Your task to perform on an android device: open app "Life360: Find Family & Friends" (install if not already installed) Image 0: 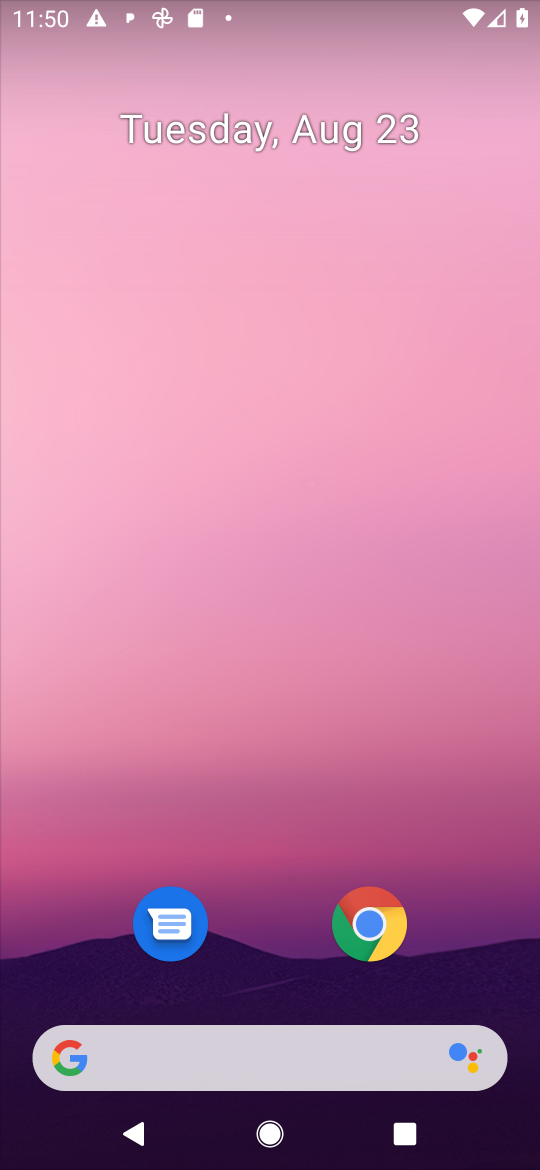
Step 0: press home button
Your task to perform on an android device: open app "Life360: Find Family & Friends" (install if not already installed) Image 1: 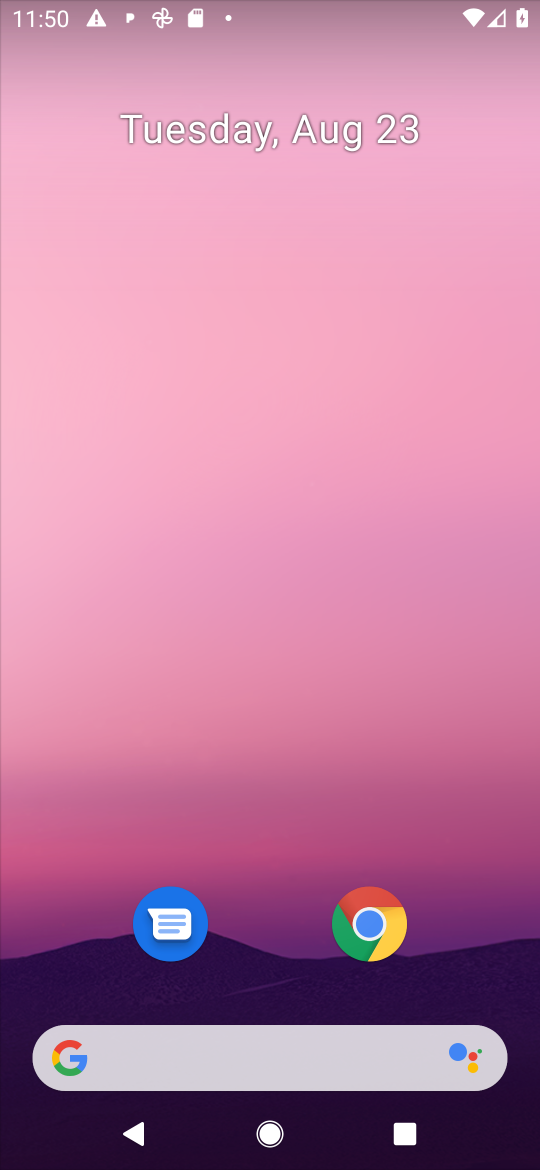
Step 1: drag from (475, 962) to (489, 142)
Your task to perform on an android device: open app "Life360: Find Family & Friends" (install if not already installed) Image 2: 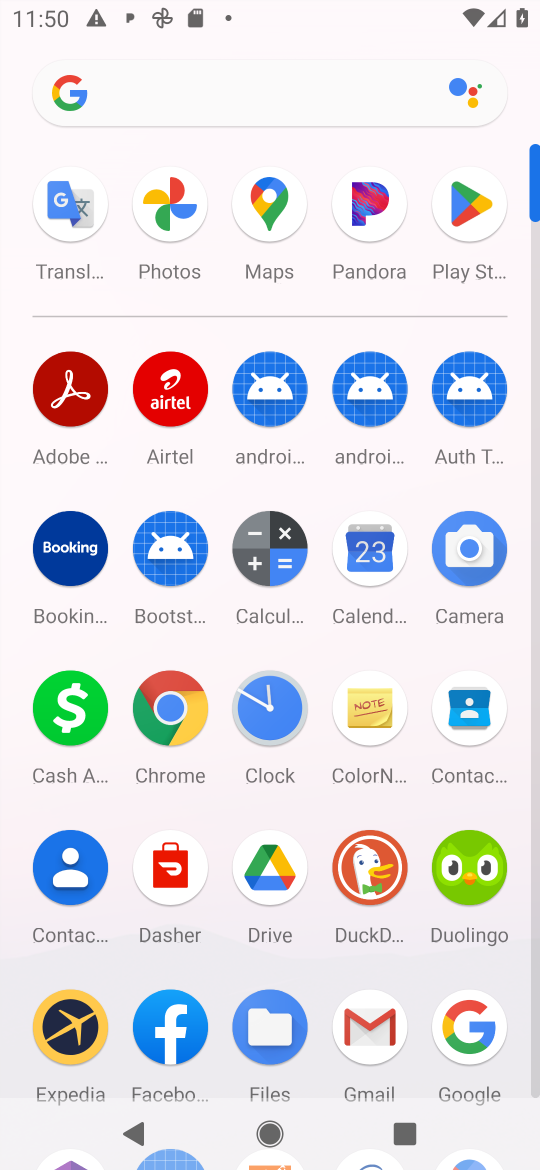
Step 2: click (475, 226)
Your task to perform on an android device: open app "Life360: Find Family & Friends" (install if not already installed) Image 3: 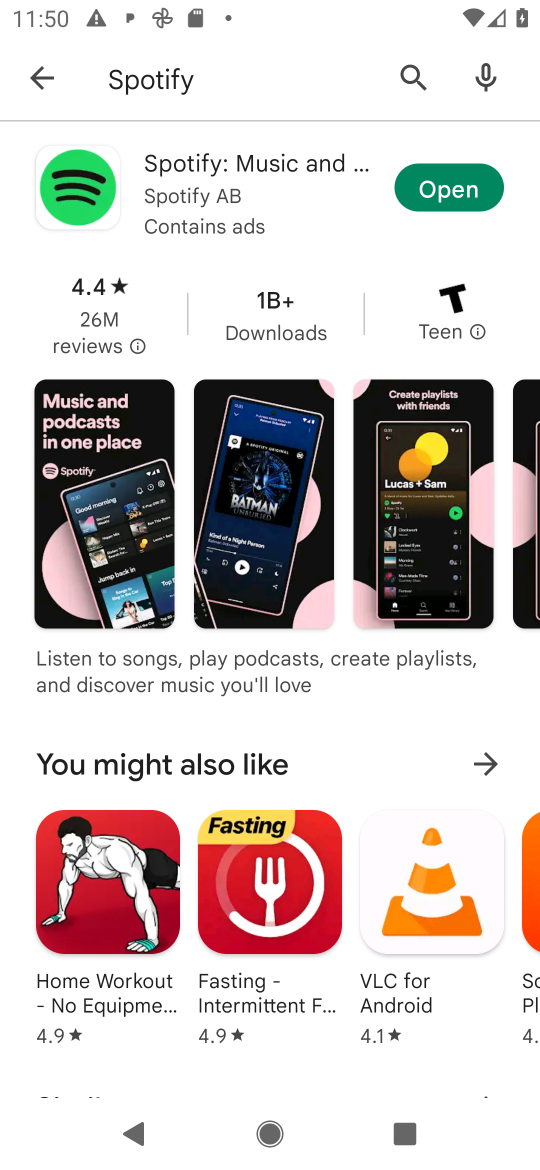
Step 3: press back button
Your task to perform on an android device: open app "Life360: Find Family & Friends" (install if not already installed) Image 4: 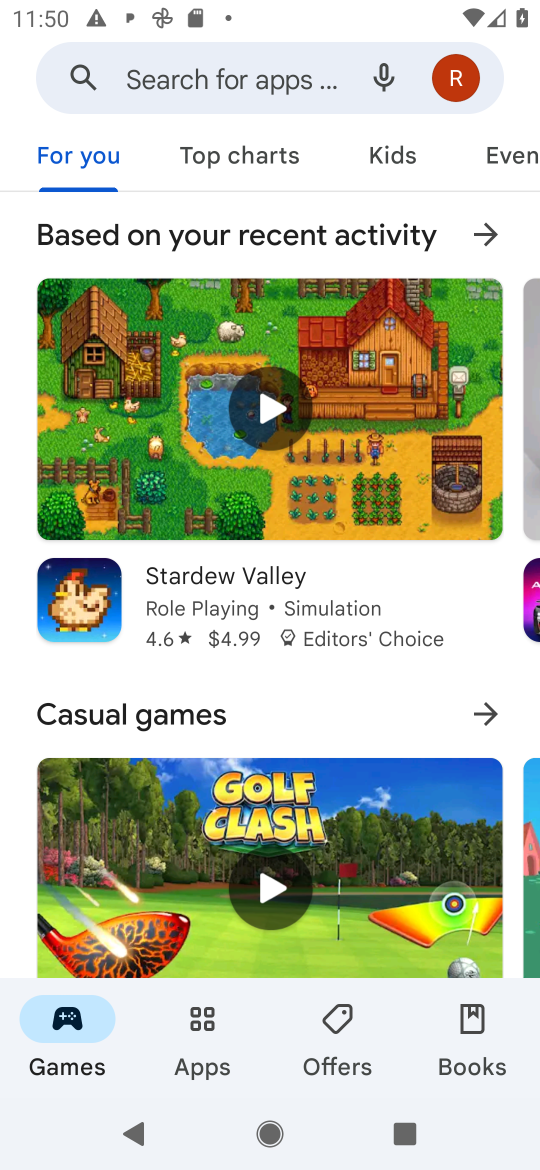
Step 4: click (250, 79)
Your task to perform on an android device: open app "Life360: Find Family & Friends" (install if not already installed) Image 5: 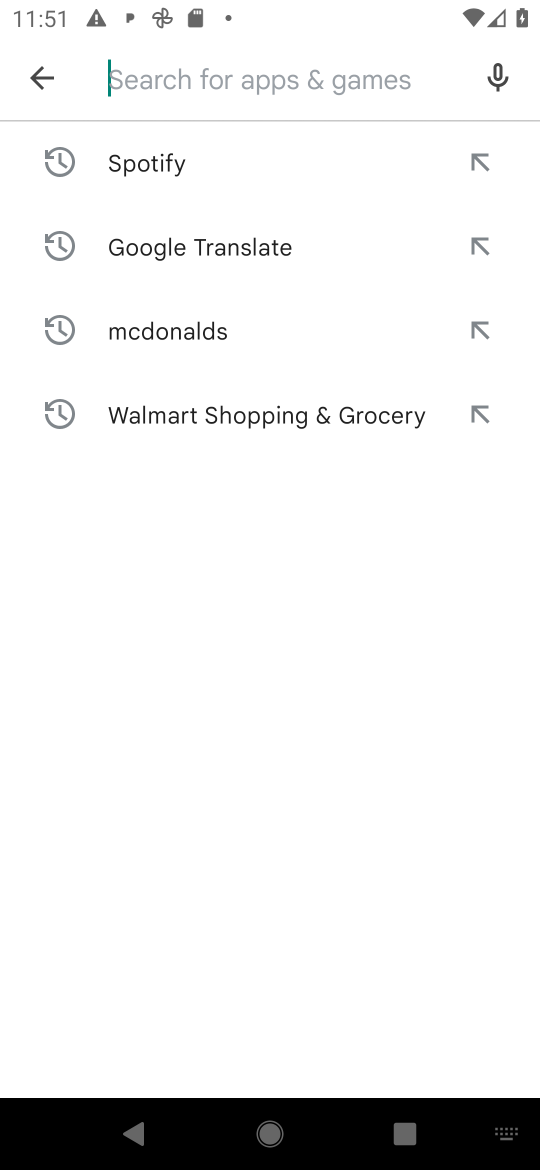
Step 5: type "Life360: Find Family & Friends"
Your task to perform on an android device: open app "Life360: Find Family & Friends" (install if not already installed) Image 6: 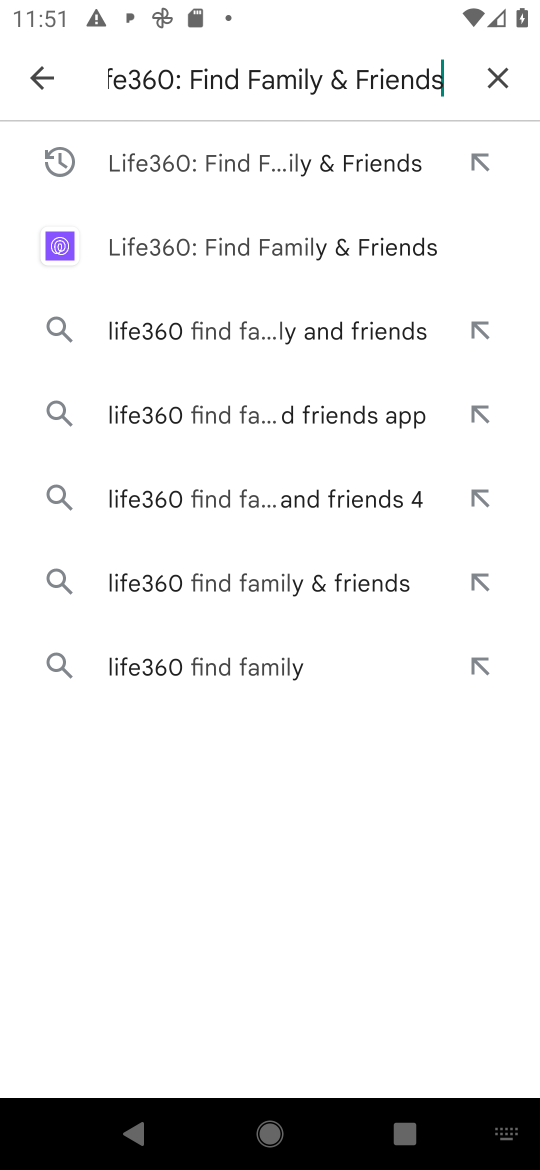
Step 6: press enter
Your task to perform on an android device: open app "Life360: Find Family & Friends" (install if not already installed) Image 7: 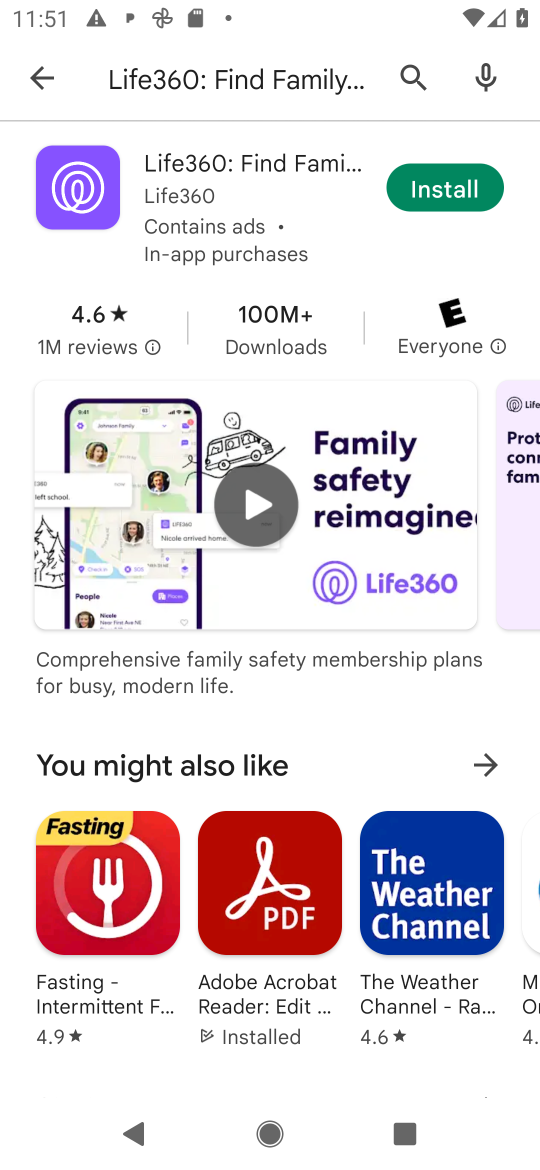
Step 7: click (456, 185)
Your task to perform on an android device: open app "Life360: Find Family & Friends" (install if not already installed) Image 8: 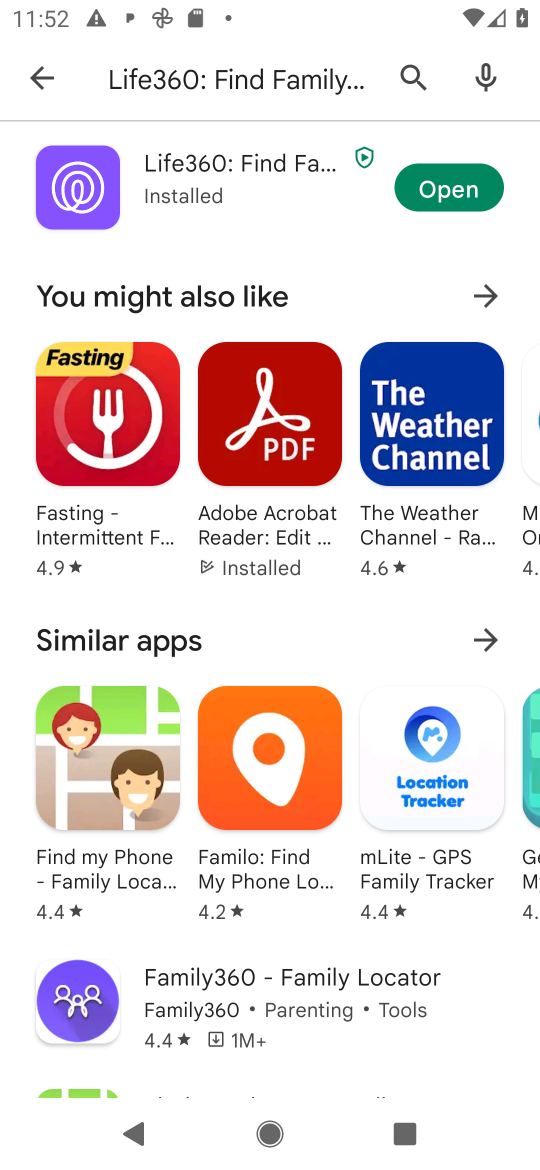
Step 8: click (447, 187)
Your task to perform on an android device: open app "Life360: Find Family & Friends" (install if not already installed) Image 9: 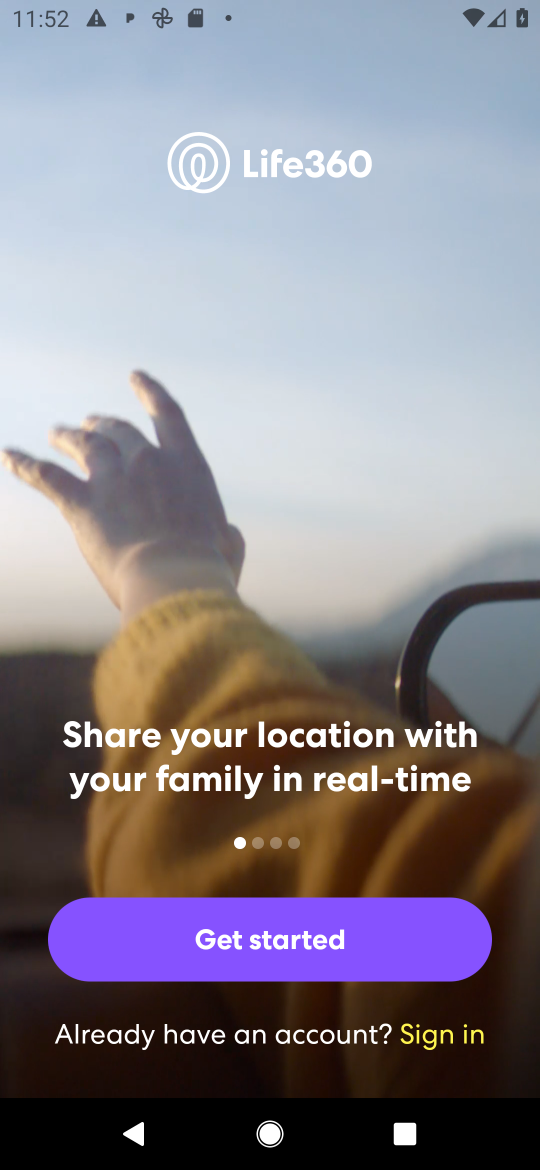
Step 9: task complete